Your task to perform on an android device: Open wifi settings Image 0: 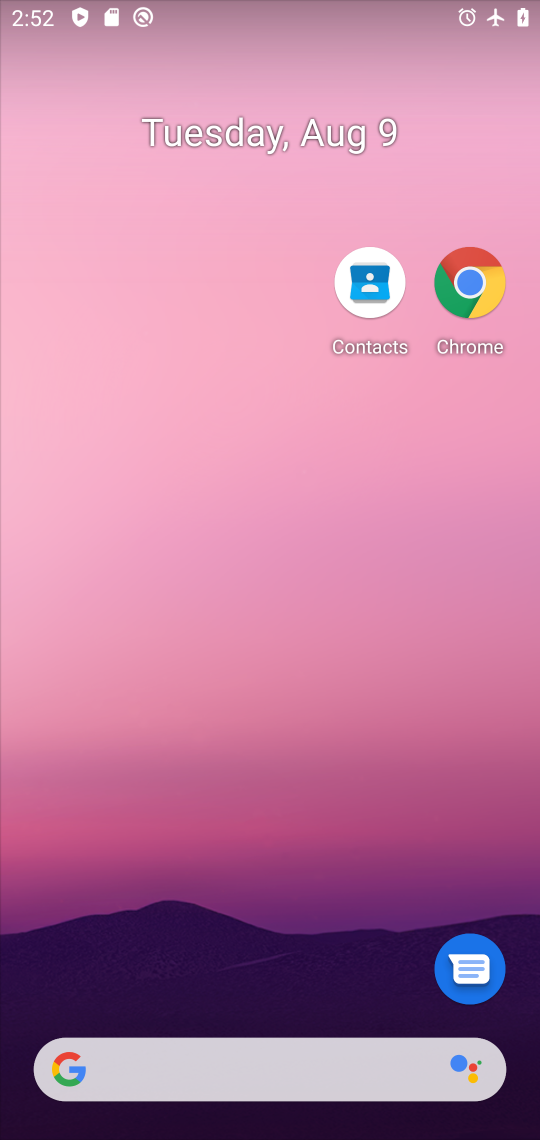
Step 0: drag from (253, 939) to (353, 138)
Your task to perform on an android device: Open wifi settings Image 1: 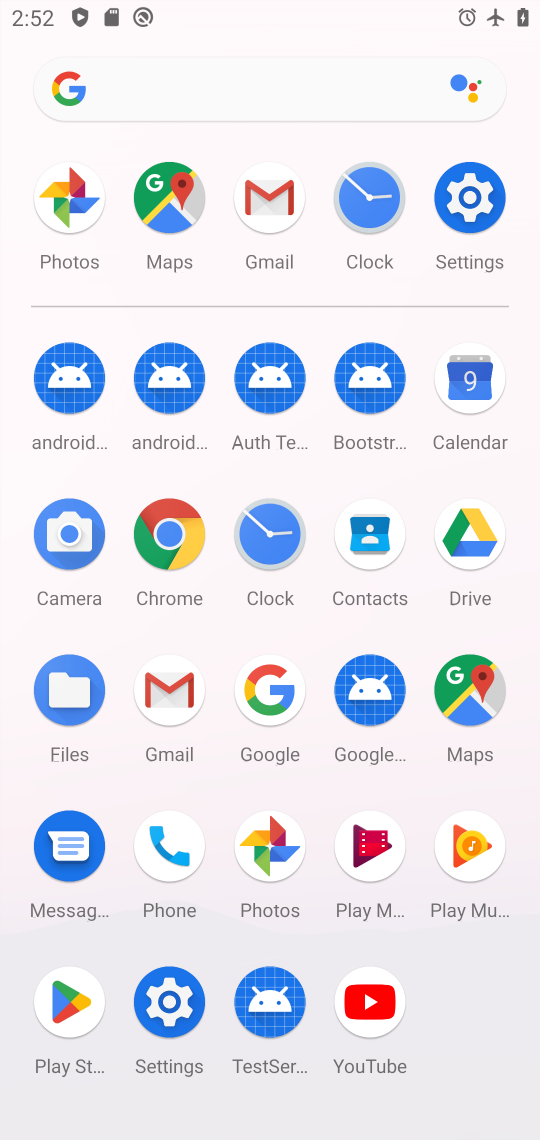
Step 1: click (166, 1008)
Your task to perform on an android device: Open wifi settings Image 2: 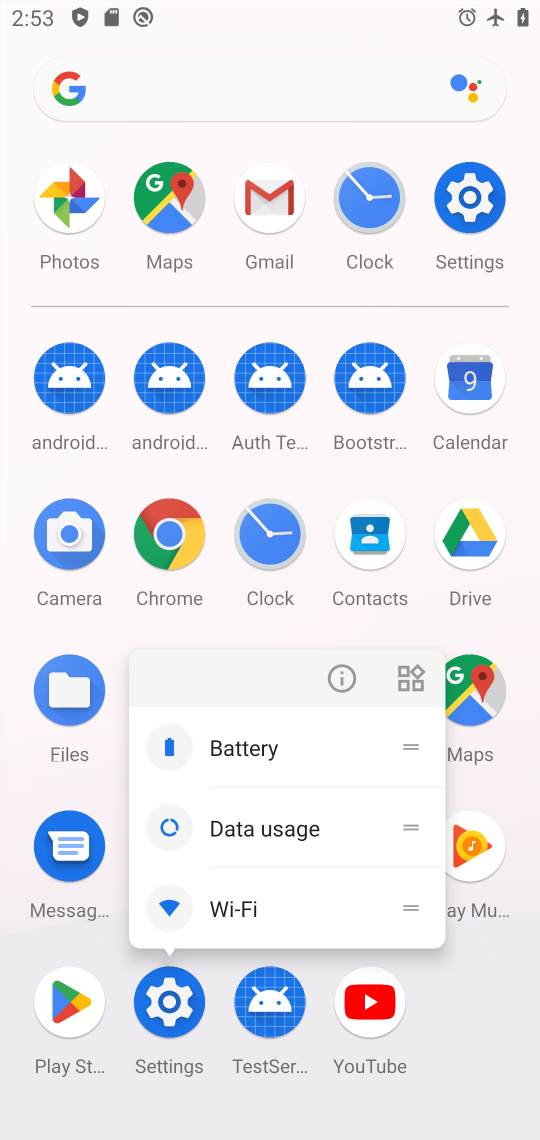
Step 2: click (340, 673)
Your task to perform on an android device: Open wifi settings Image 3: 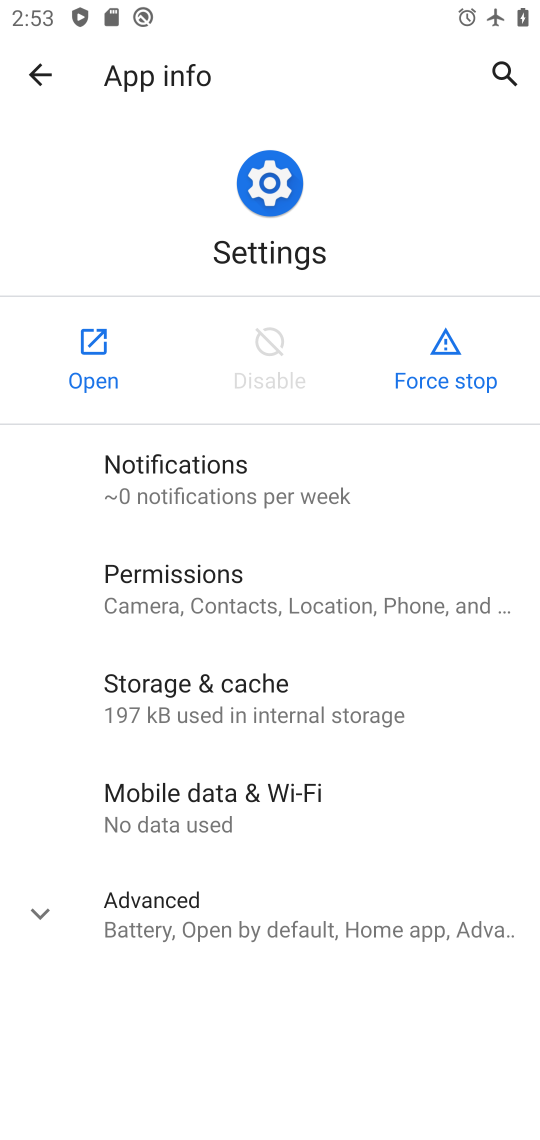
Step 3: click (103, 353)
Your task to perform on an android device: Open wifi settings Image 4: 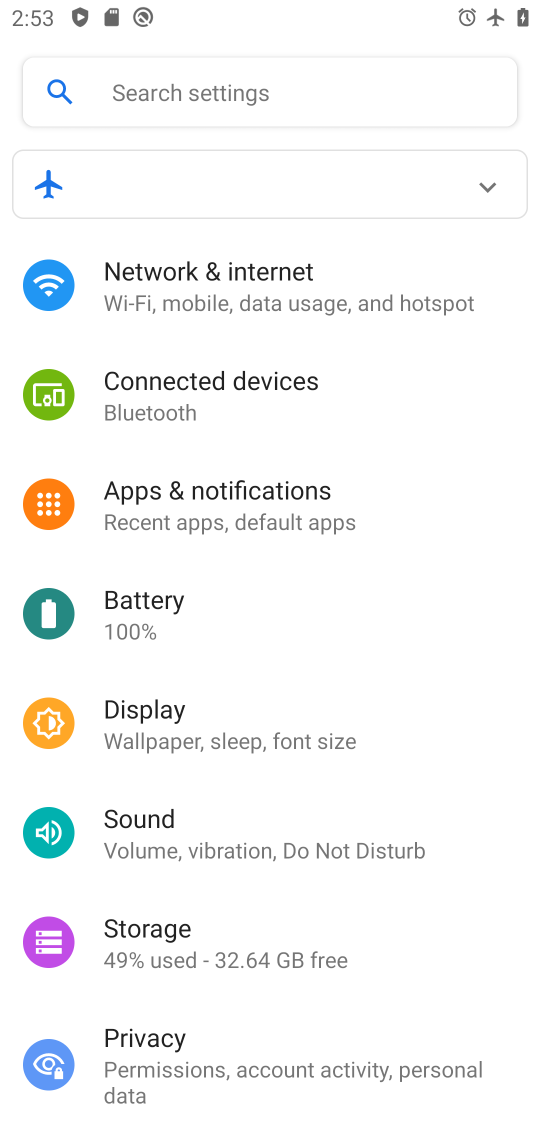
Step 4: click (238, 288)
Your task to perform on an android device: Open wifi settings Image 5: 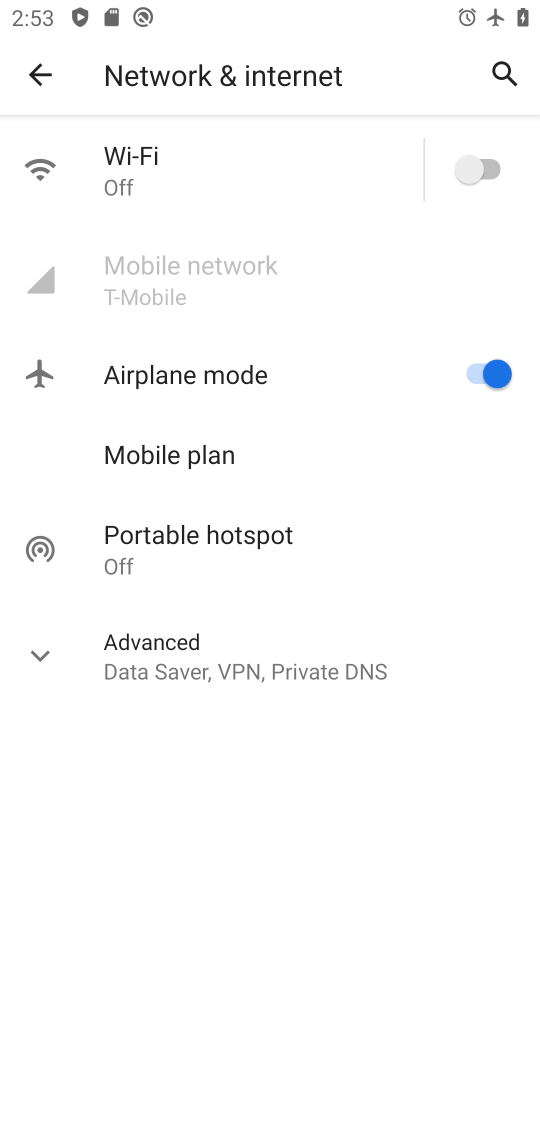
Step 5: click (293, 165)
Your task to perform on an android device: Open wifi settings Image 6: 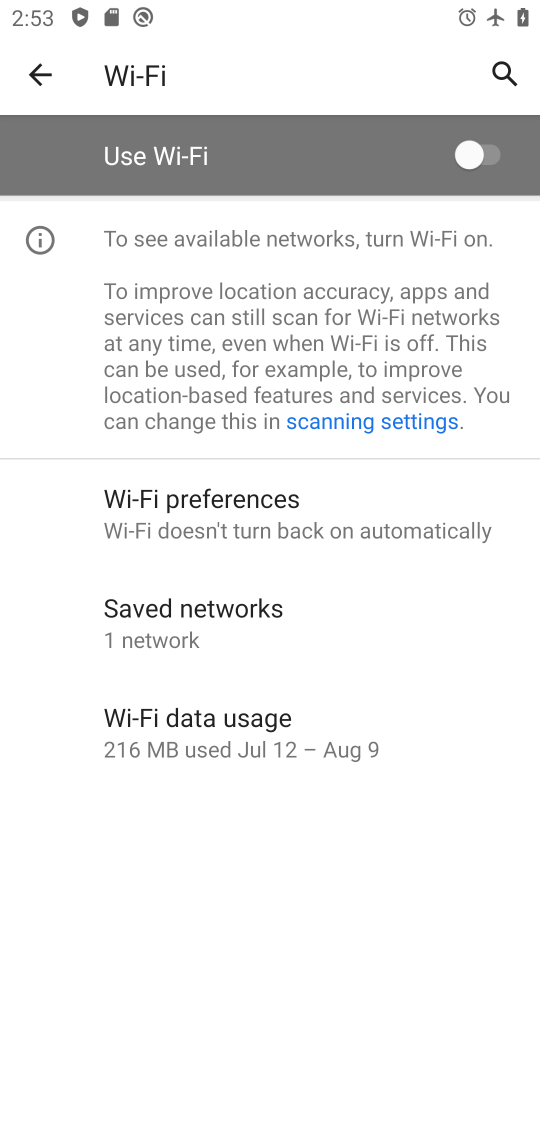
Step 6: task complete